Your task to perform on an android device: toggle notification dots Image 0: 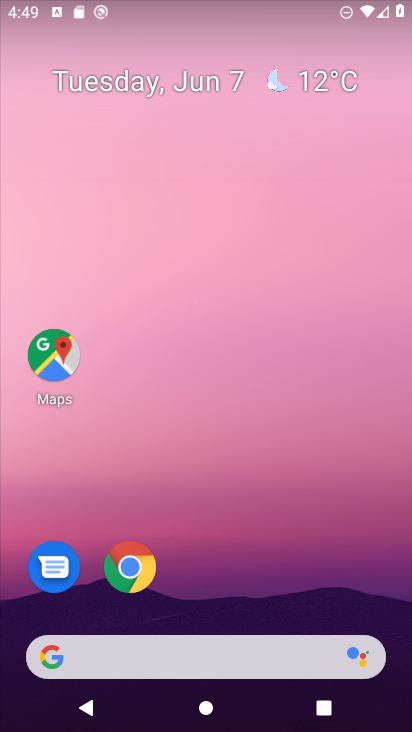
Step 0: drag from (302, 601) to (306, 32)
Your task to perform on an android device: toggle notification dots Image 1: 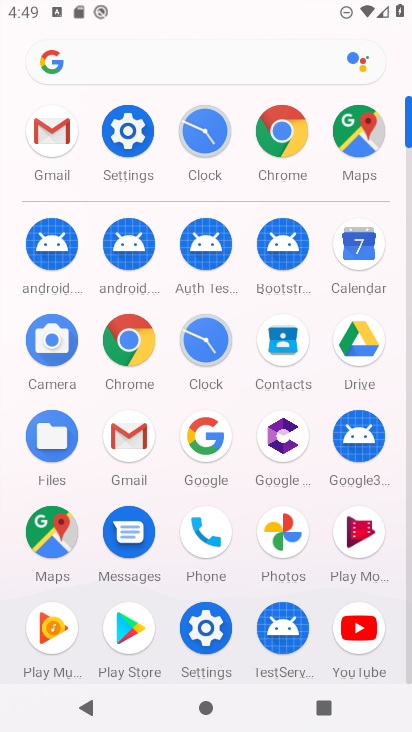
Step 1: click (130, 135)
Your task to perform on an android device: toggle notification dots Image 2: 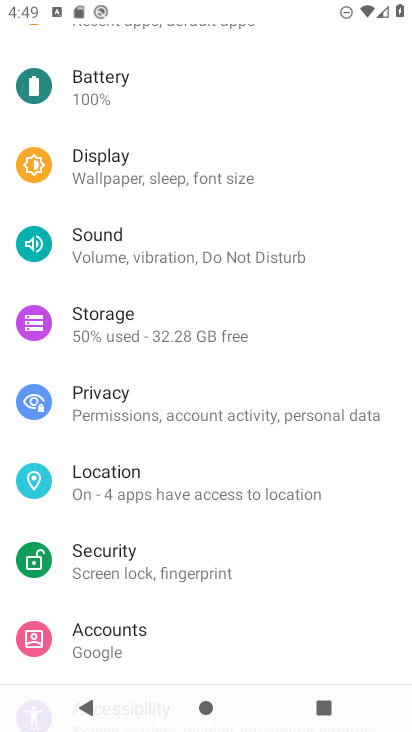
Step 2: drag from (183, 132) to (198, 445)
Your task to perform on an android device: toggle notification dots Image 3: 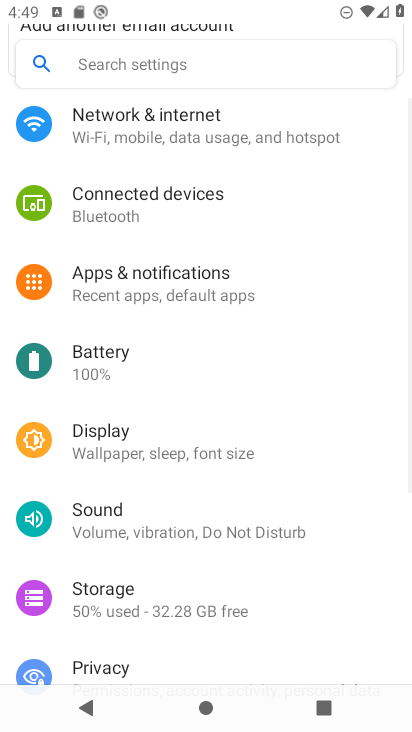
Step 3: click (189, 289)
Your task to perform on an android device: toggle notification dots Image 4: 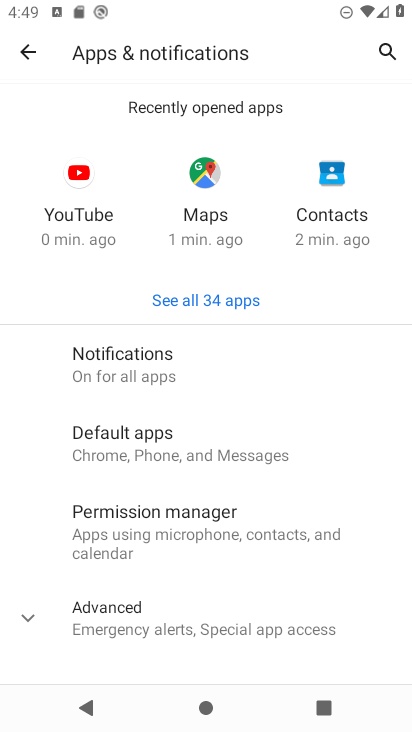
Step 4: click (173, 369)
Your task to perform on an android device: toggle notification dots Image 5: 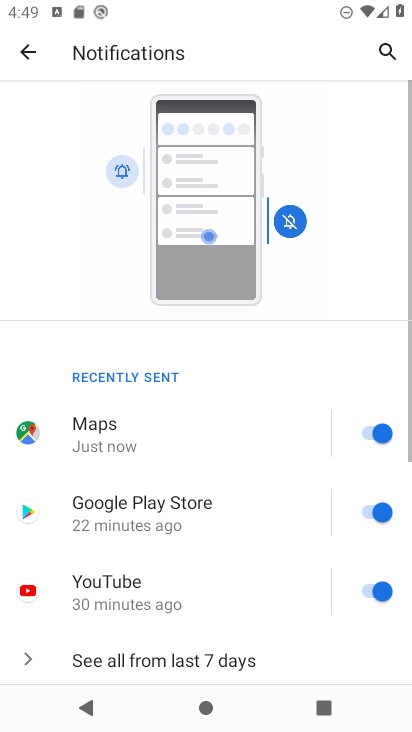
Step 5: drag from (222, 634) to (278, 106)
Your task to perform on an android device: toggle notification dots Image 6: 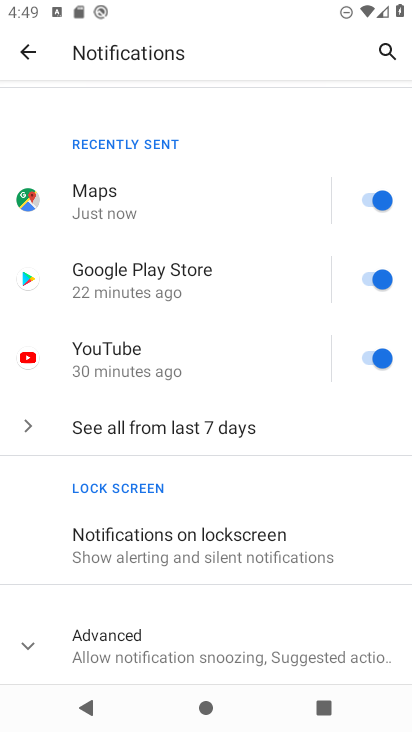
Step 6: click (253, 650)
Your task to perform on an android device: toggle notification dots Image 7: 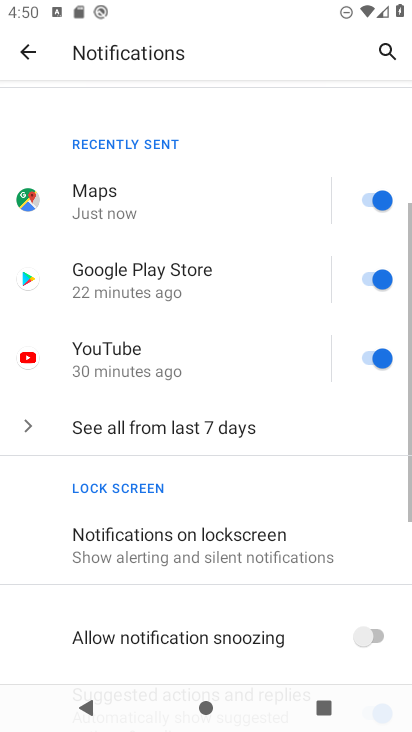
Step 7: drag from (254, 648) to (279, 285)
Your task to perform on an android device: toggle notification dots Image 8: 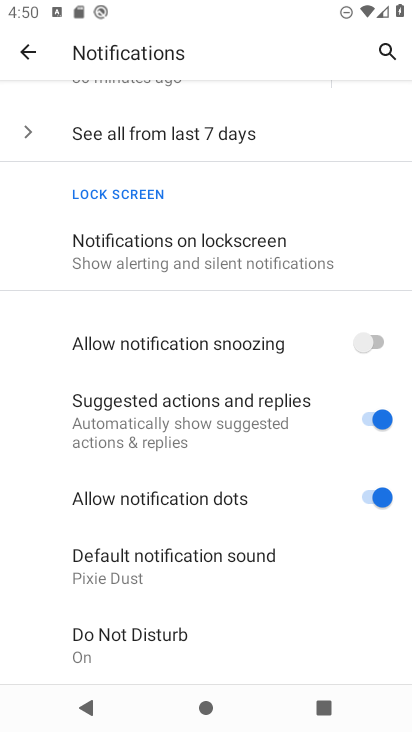
Step 8: click (381, 501)
Your task to perform on an android device: toggle notification dots Image 9: 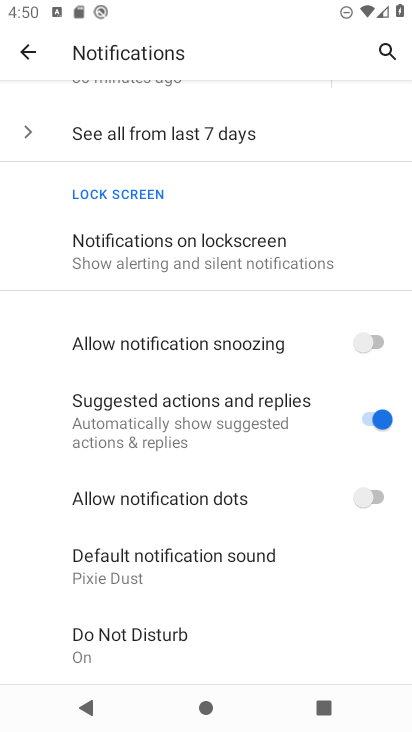
Step 9: task complete